Your task to perform on an android device: Go to Reddit.com Image 0: 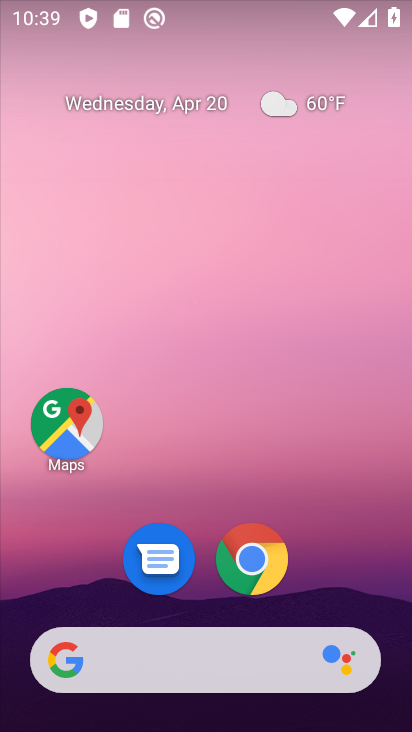
Step 0: drag from (233, 643) to (282, 17)
Your task to perform on an android device: Go to Reddit.com Image 1: 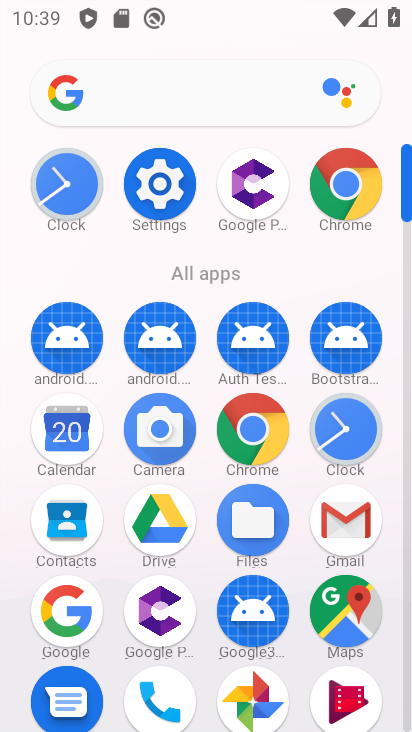
Step 1: click (249, 457)
Your task to perform on an android device: Go to Reddit.com Image 2: 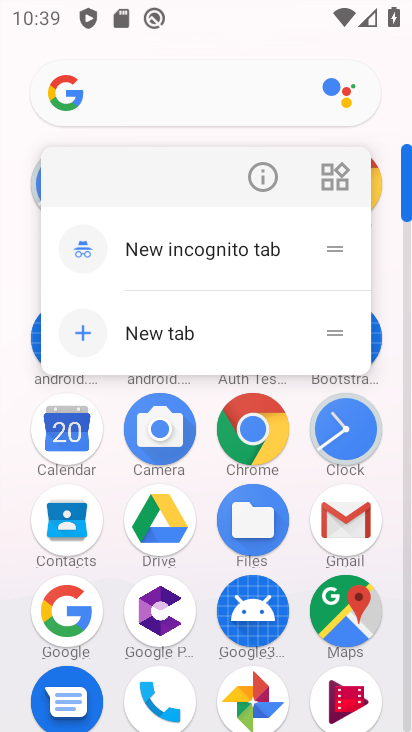
Step 2: click (239, 446)
Your task to perform on an android device: Go to Reddit.com Image 3: 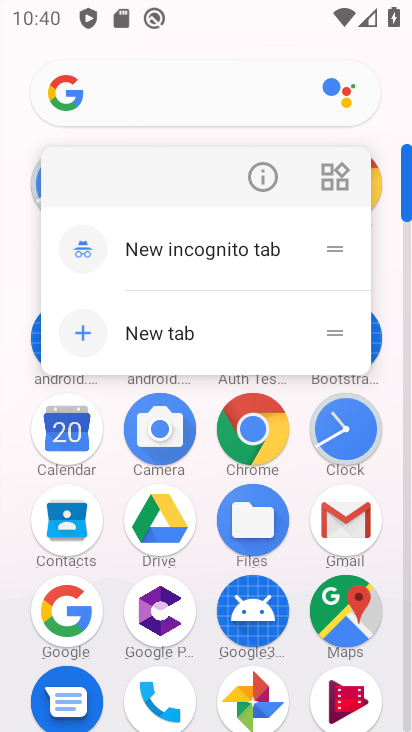
Step 3: click (239, 446)
Your task to perform on an android device: Go to Reddit.com Image 4: 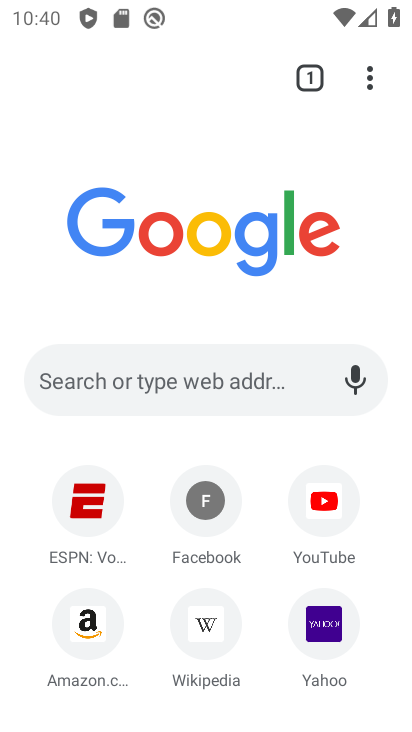
Step 4: click (266, 383)
Your task to perform on an android device: Go to Reddit.com Image 5: 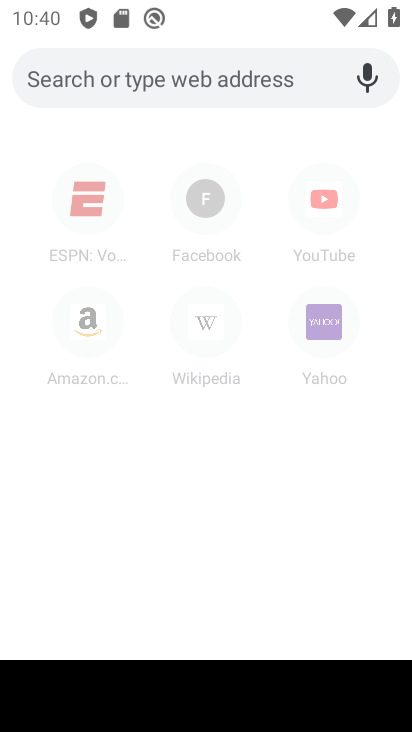
Step 5: type "reddit"
Your task to perform on an android device: Go to Reddit.com Image 6: 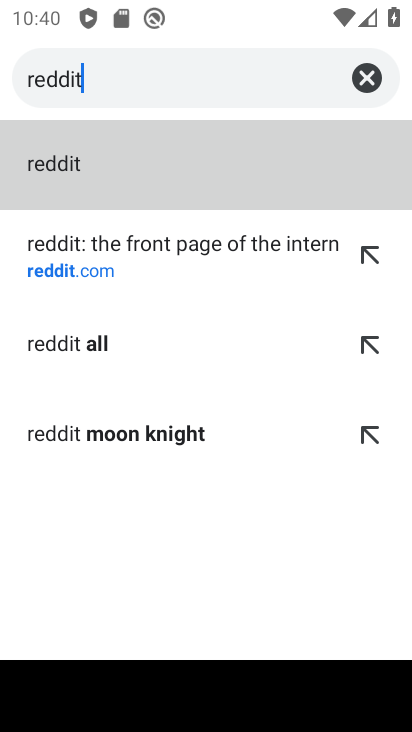
Step 6: click (156, 265)
Your task to perform on an android device: Go to Reddit.com Image 7: 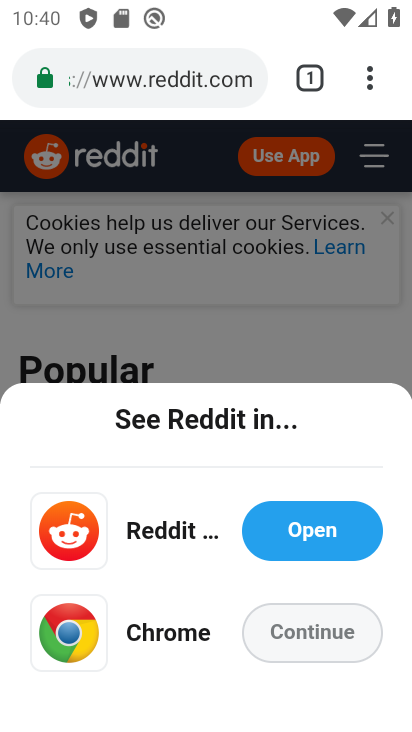
Step 7: task complete